Your task to perform on an android device: Go to Google maps Image 0: 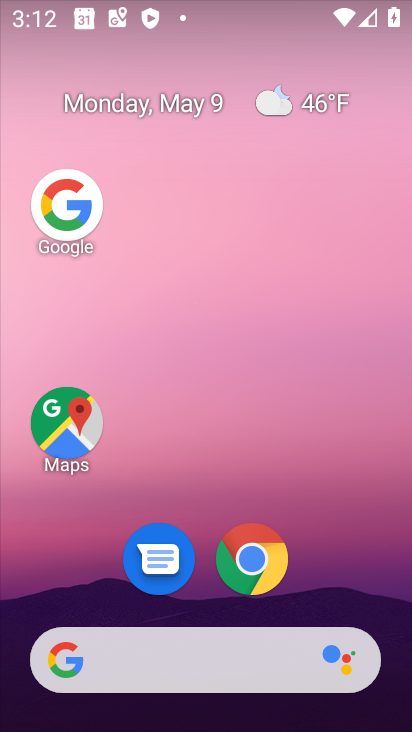
Step 0: drag from (349, 576) to (369, 152)
Your task to perform on an android device: Go to Google maps Image 1: 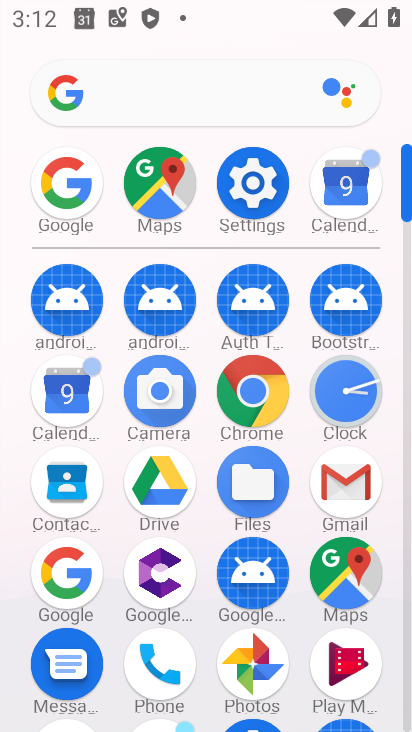
Step 1: click (69, 576)
Your task to perform on an android device: Go to Google maps Image 2: 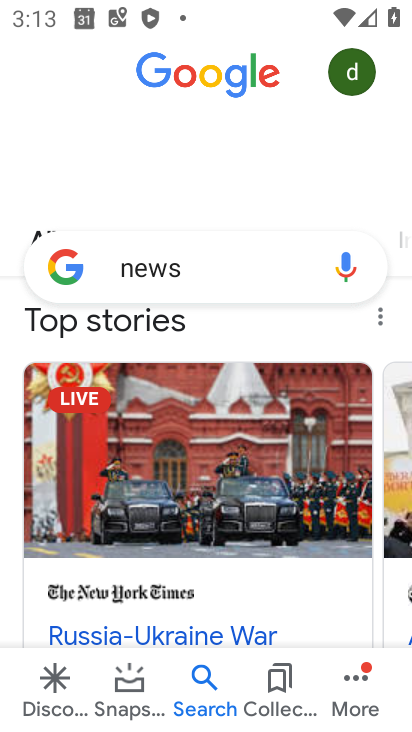
Step 2: press back button
Your task to perform on an android device: Go to Google maps Image 3: 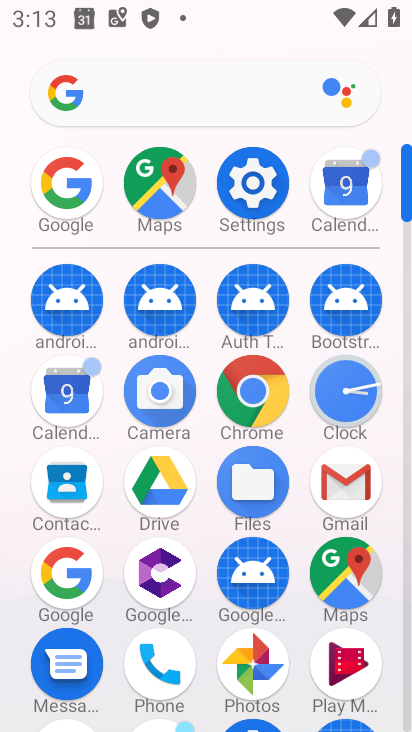
Step 3: click (170, 191)
Your task to perform on an android device: Go to Google maps Image 4: 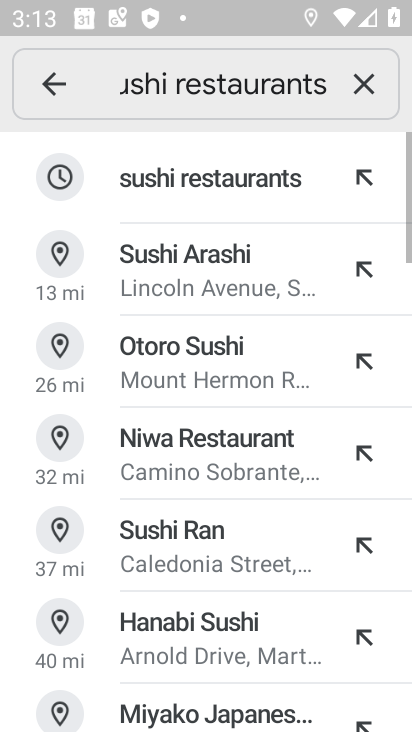
Step 4: task complete